Your task to perform on an android device: manage bookmarks in the chrome app Image 0: 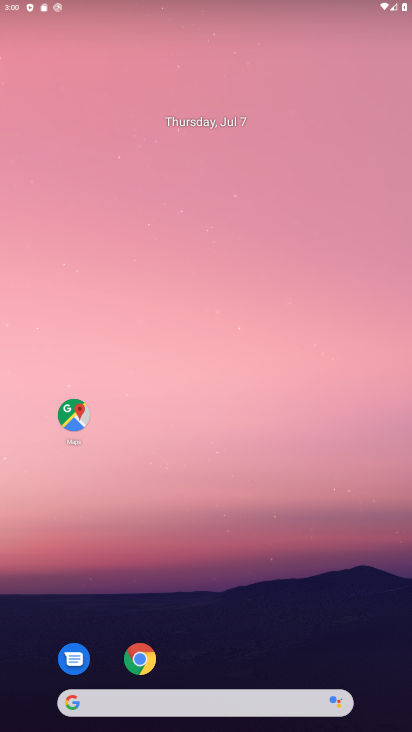
Step 0: click (142, 661)
Your task to perform on an android device: manage bookmarks in the chrome app Image 1: 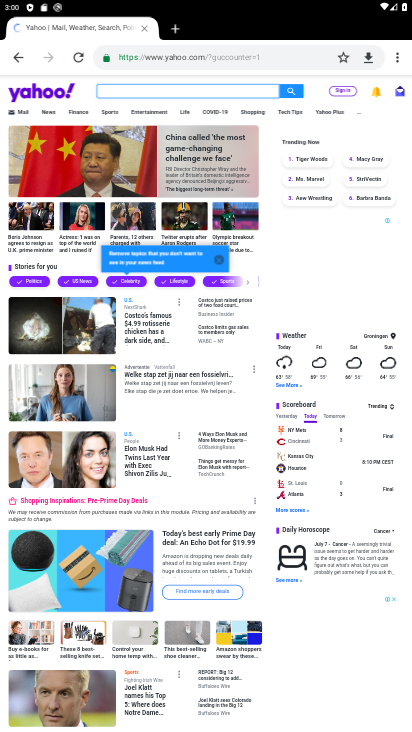
Step 1: click (399, 50)
Your task to perform on an android device: manage bookmarks in the chrome app Image 2: 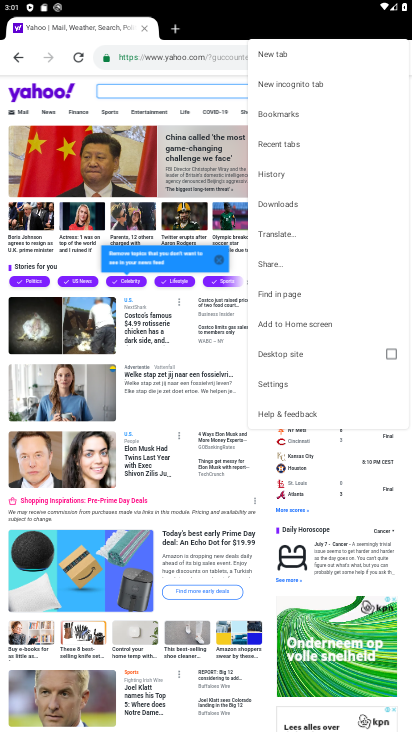
Step 2: click (308, 112)
Your task to perform on an android device: manage bookmarks in the chrome app Image 3: 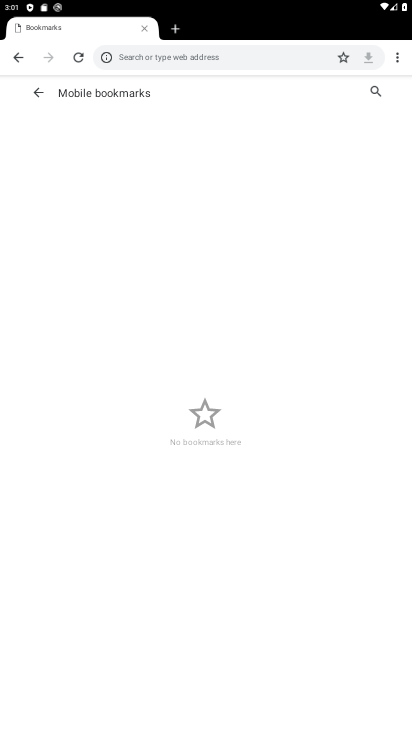
Step 3: task complete